Your task to perform on an android device: set the timer Image 0: 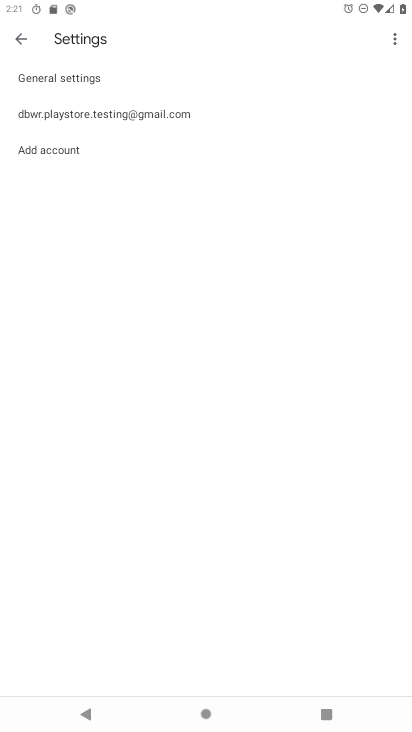
Step 0: press home button
Your task to perform on an android device: set the timer Image 1: 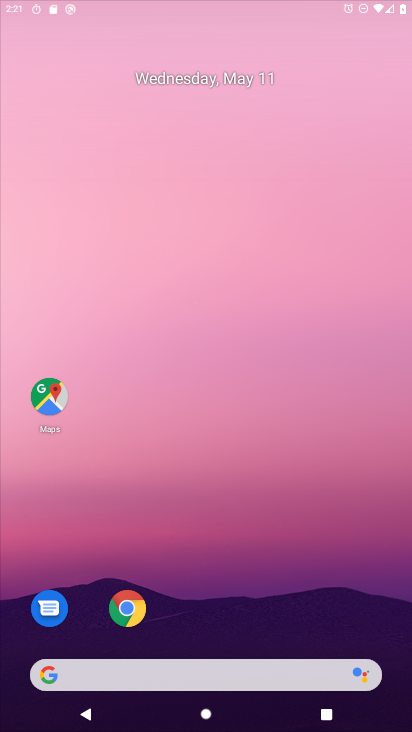
Step 1: drag from (226, 587) to (342, 40)
Your task to perform on an android device: set the timer Image 2: 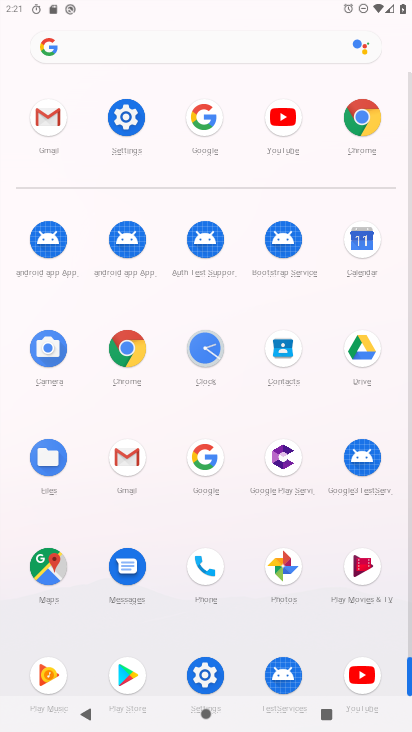
Step 2: click (212, 362)
Your task to perform on an android device: set the timer Image 3: 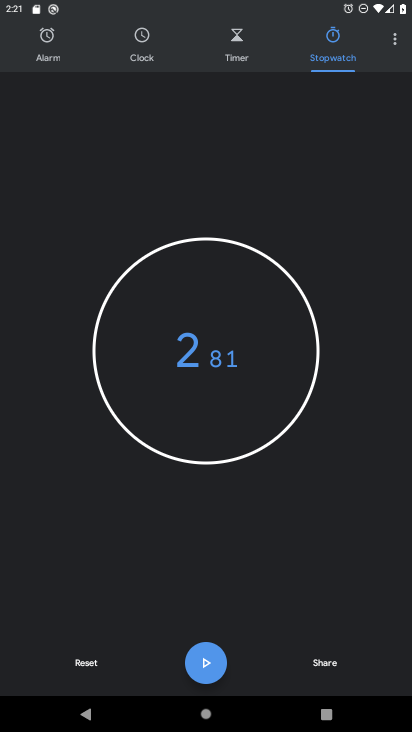
Step 3: click (233, 59)
Your task to perform on an android device: set the timer Image 4: 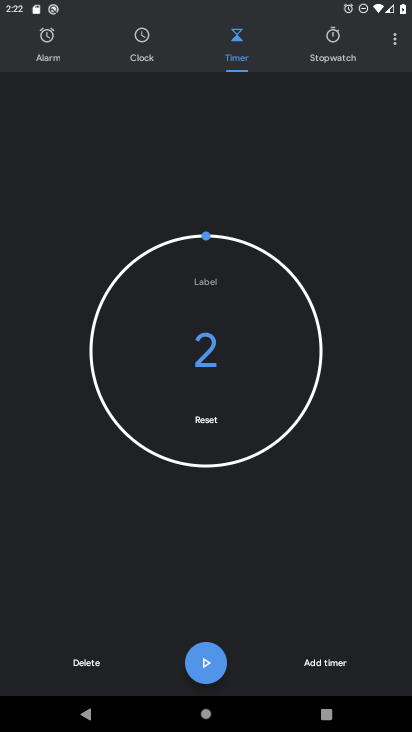
Step 4: click (95, 672)
Your task to perform on an android device: set the timer Image 5: 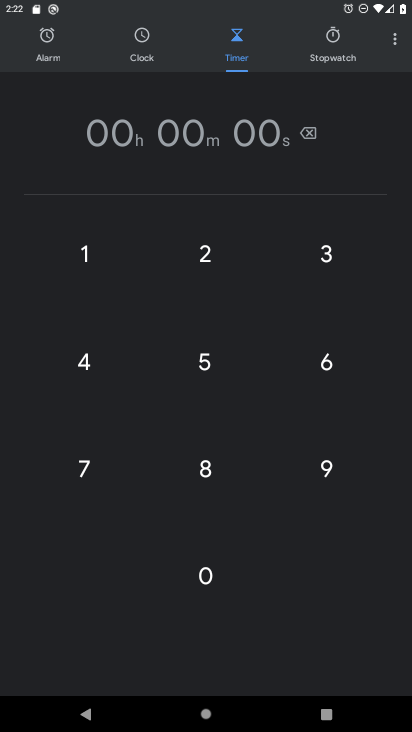
Step 5: click (197, 278)
Your task to perform on an android device: set the timer Image 6: 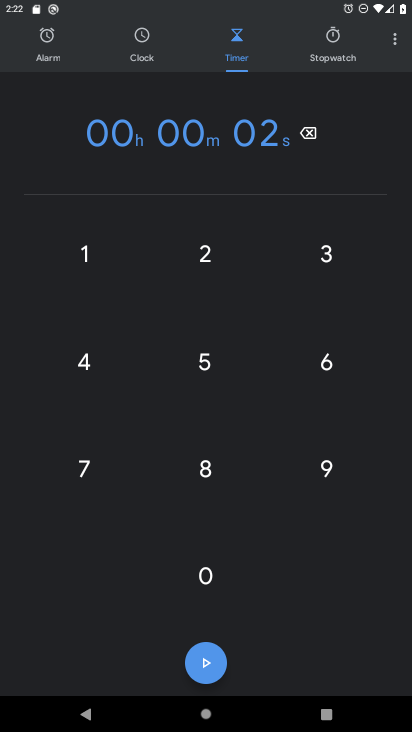
Step 6: click (206, 682)
Your task to perform on an android device: set the timer Image 7: 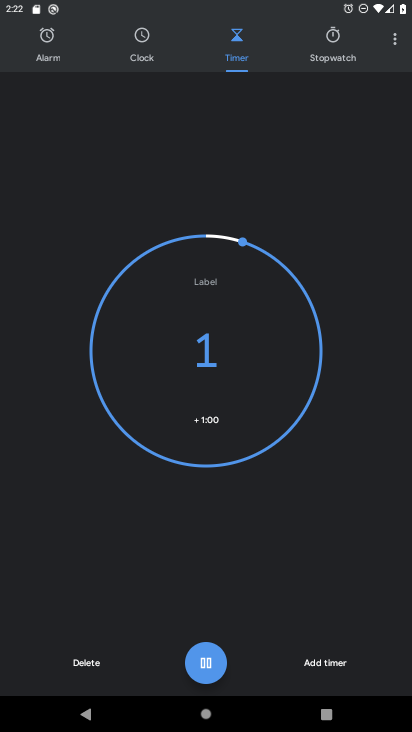
Step 7: task complete